Your task to perform on an android device: What is the recent news? Image 0: 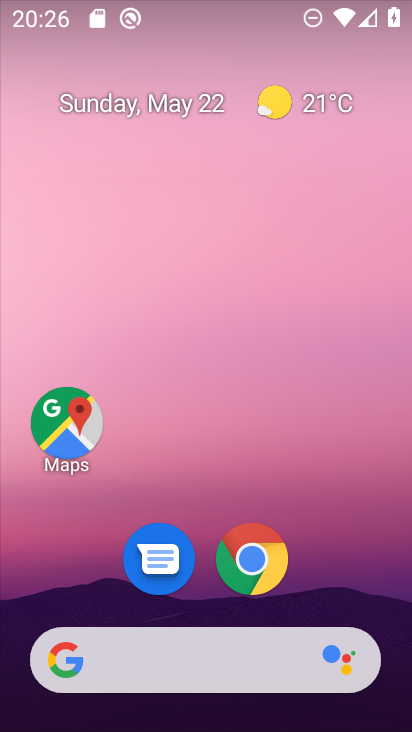
Step 0: press home button
Your task to perform on an android device: What is the recent news? Image 1: 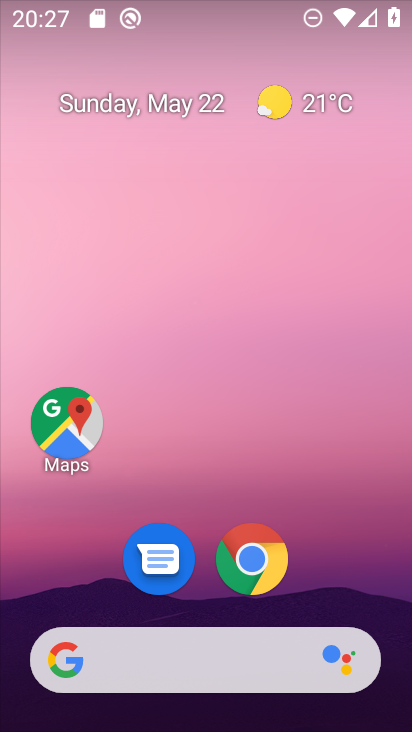
Step 1: drag from (251, 703) to (224, 141)
Your task to perform on an android device: What is the recent news? Image 2: 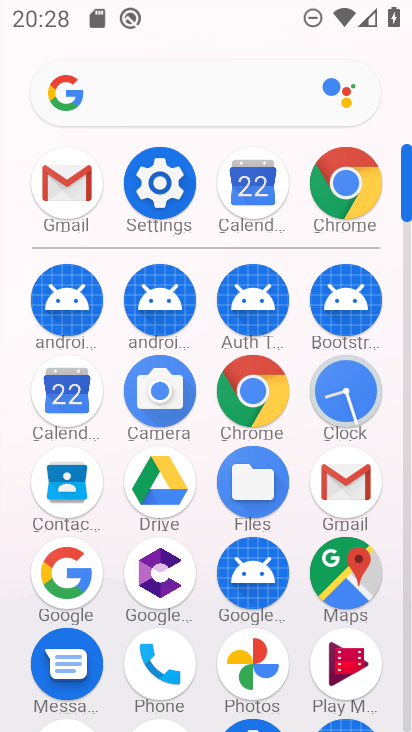
Step 2: click (186, 107)
Your task to perform on an android device: What is the recent news? Image 3: 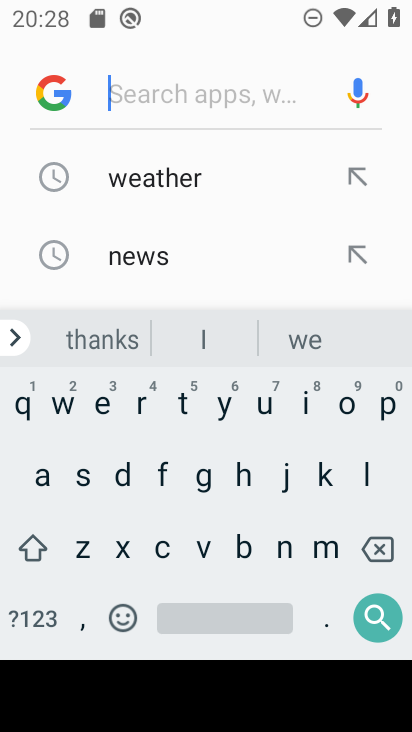
Step 3: click (168, 258)
Your task to perform on an android device: What is the recent news? Image 4: 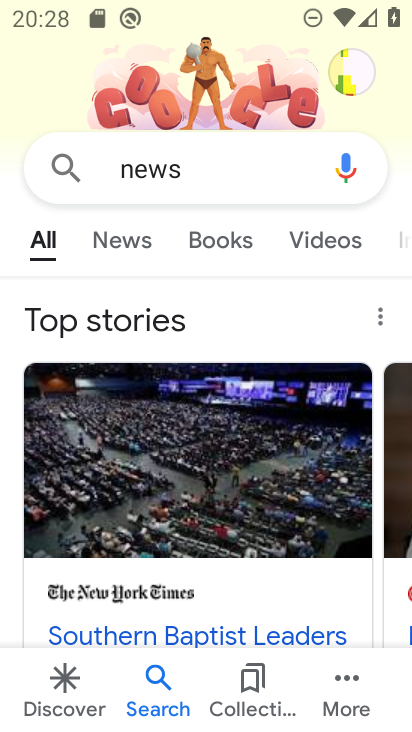
Step 4: task complete